Your task to perform on an android device: all mails in gmail Image 0: 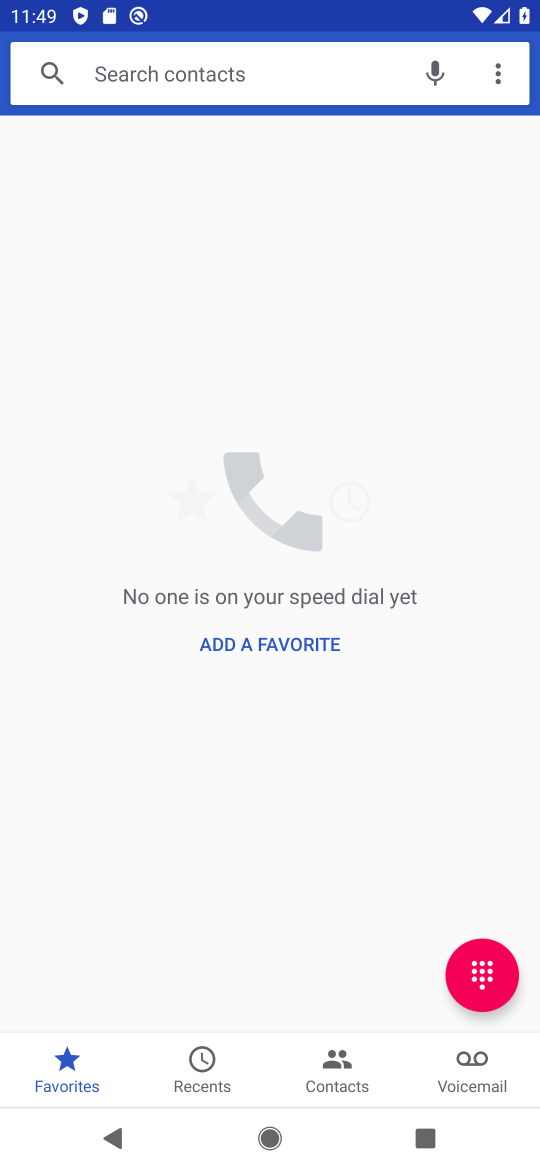
Step 0: press home button
Your task to perform on an android device: all mails in gmail Image 1: 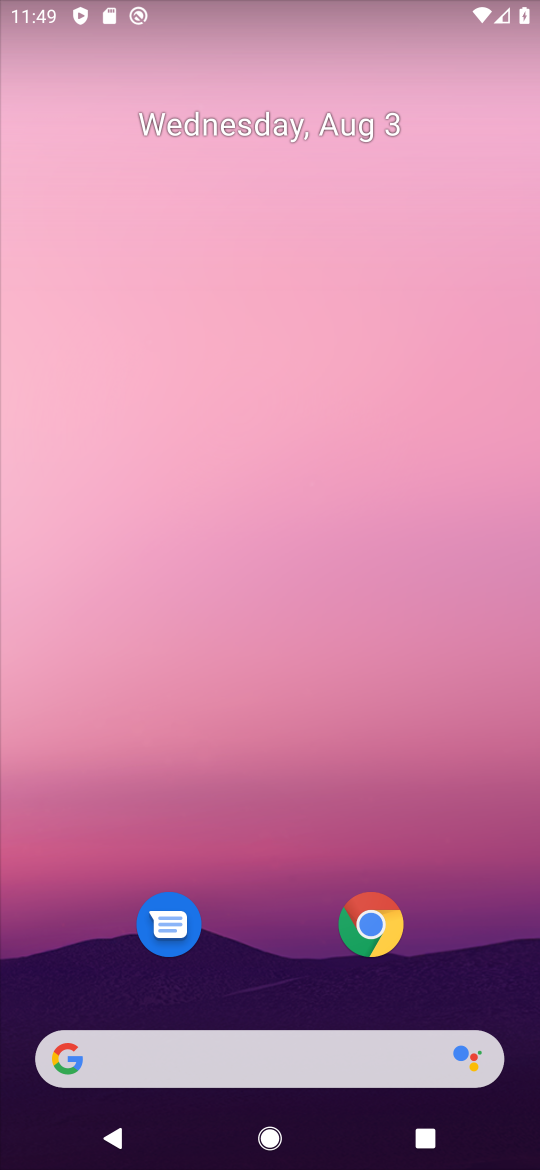
Step 1: drag from (489, 961) to (411, 310)
Your task to perform on an android device: all mails in gmail Image 2: 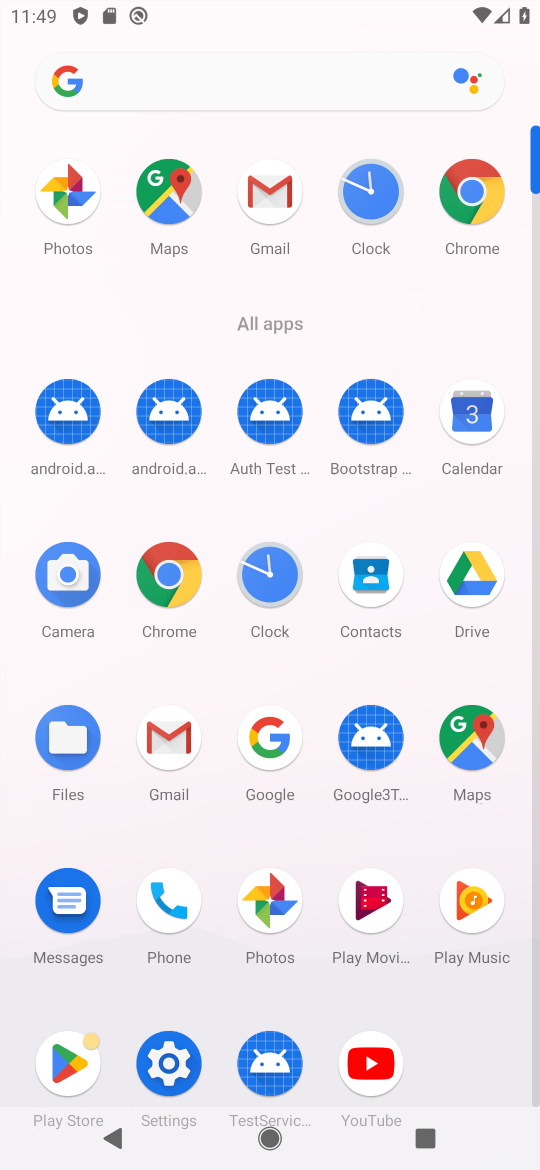
Step 2: click (259, 203)
Your task to perform on an android device: all mails in gmail Image 3: 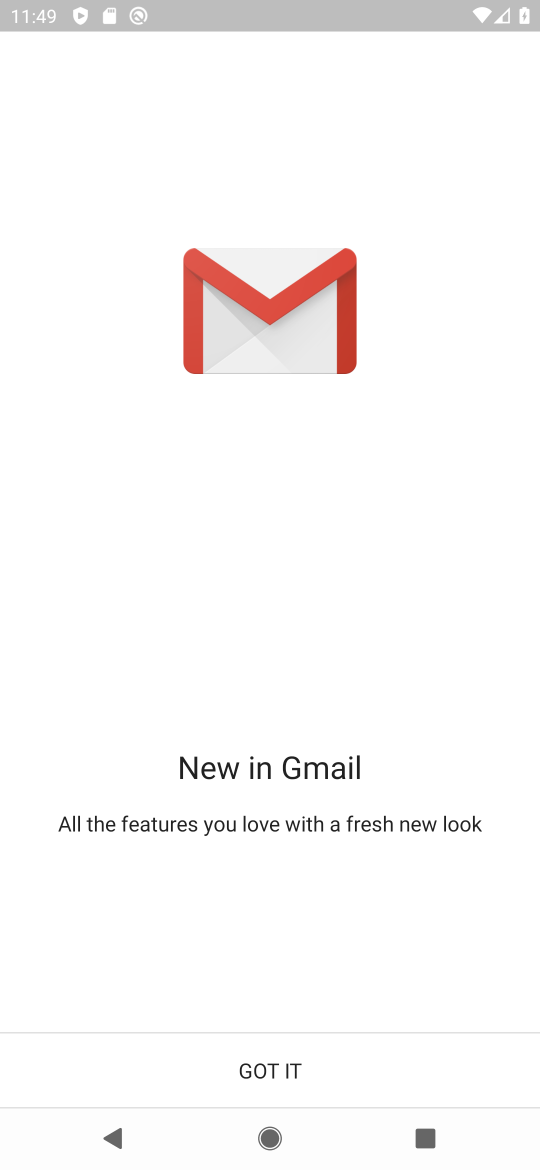
Step 3: click (291, 1048)
Your task to perform on an android device: all mails in gmail Image 4: 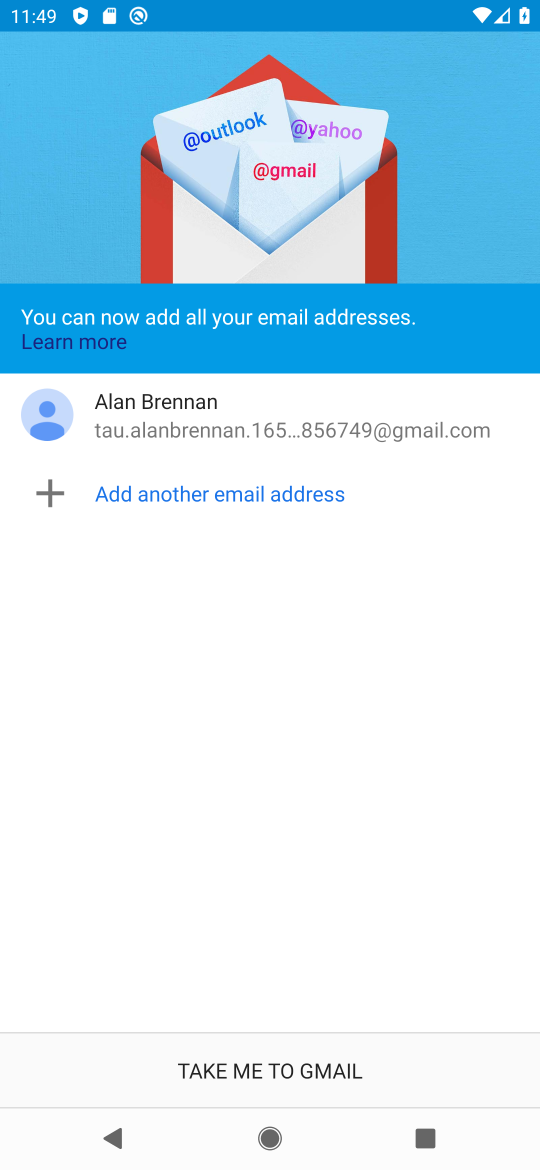
Step 4: click (291, 1048)
Your task to perform on an android device: all mails in gmail Image 5: 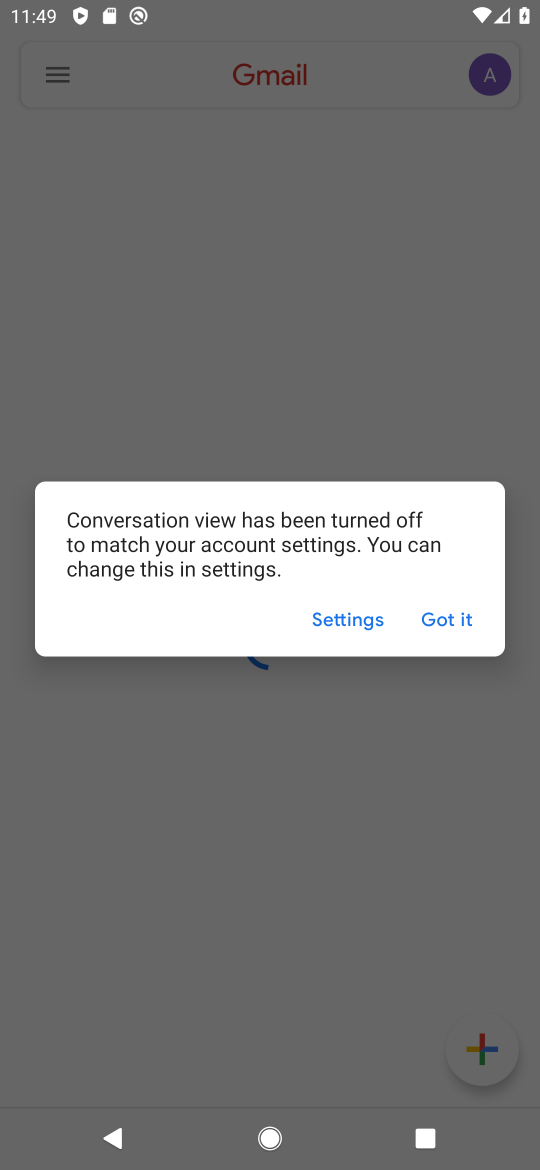
Step 5: click (432, 640)
Your task to perform on an android device: all mails in gmail Image 6: 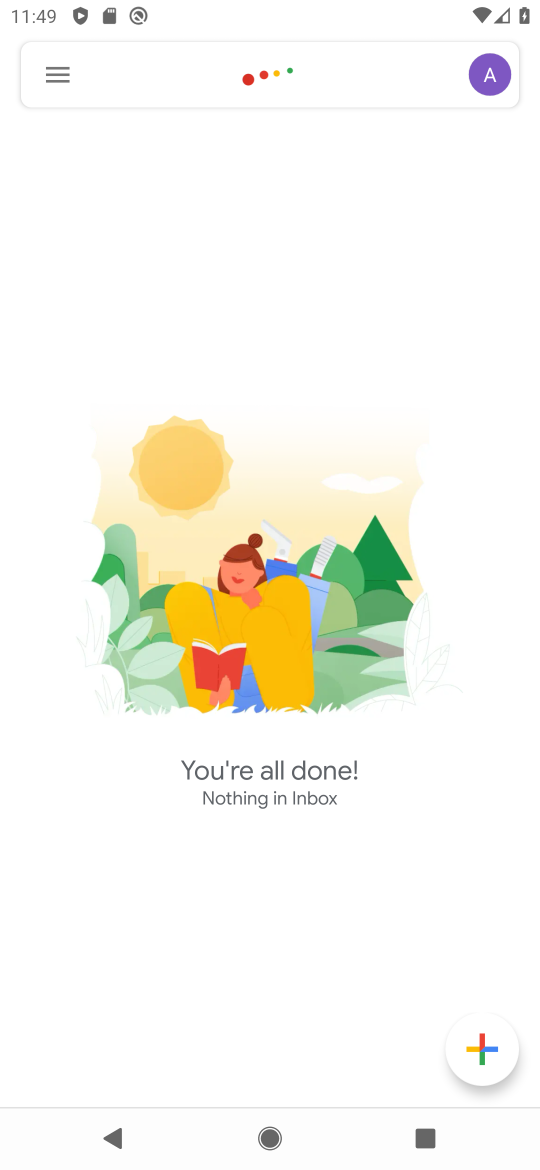
Step 6: click (59, 91)
Your task to perform on an android device: all mails in gmail Image 7: 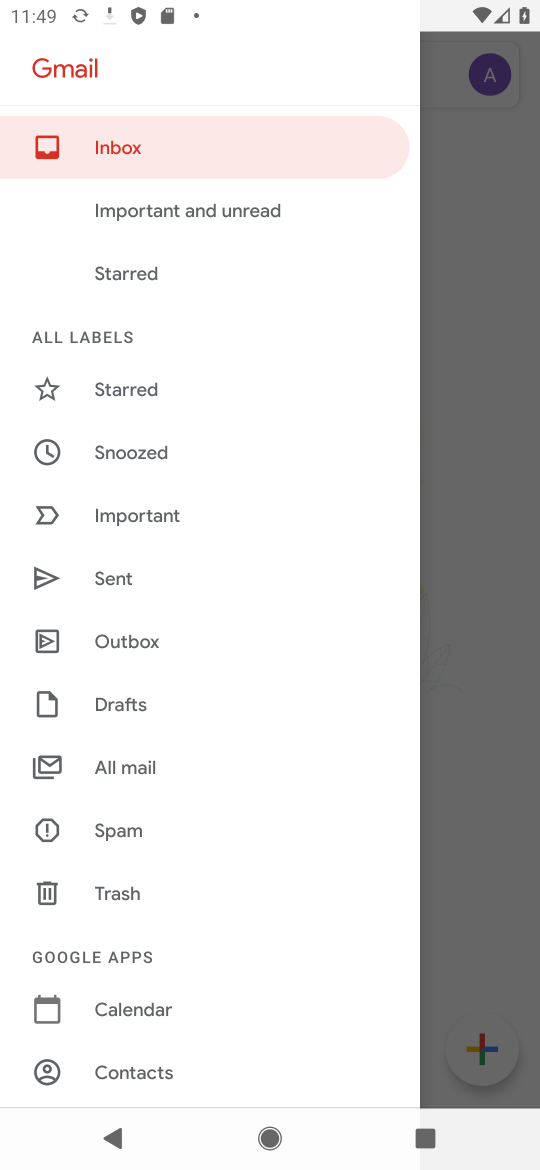
Step 7: click (182, 762)
Your task to perform on an android device: all mails in gmail Image 8: 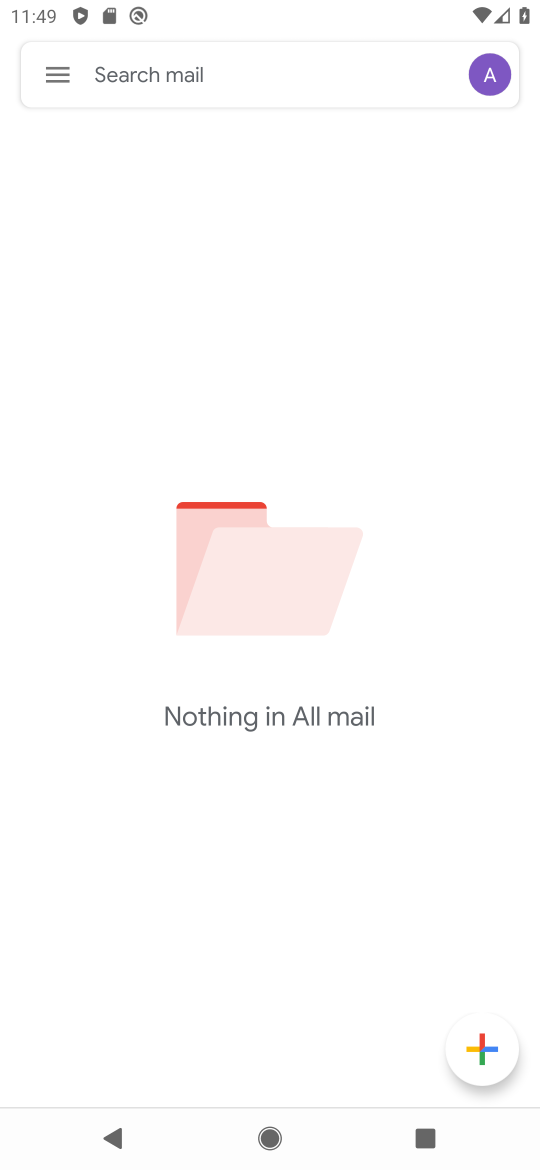
Step 8: task complete